Your task to perform on an android device: turn off data saver in the chrome app Image 0: 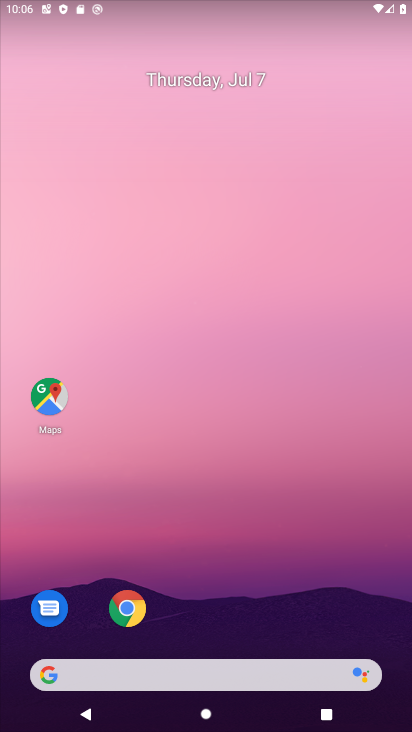
Step 0: click (130, 608)
Your task to perform on an android device: turn off data saver in the chrome app Image 1: 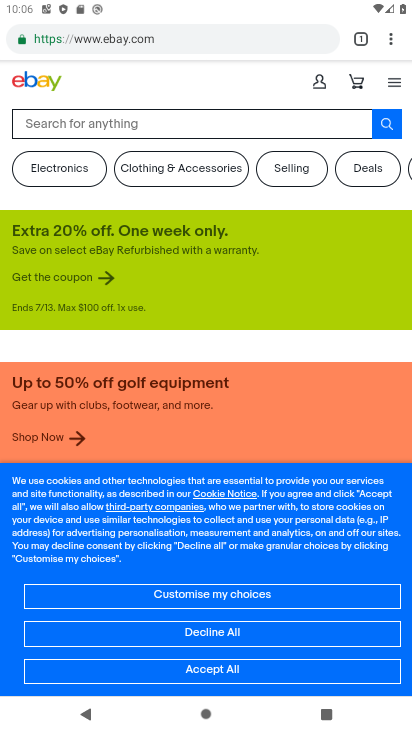
Step 1: click (386, 42)
Your task to perform on an android device: turn off data saver in the chrome app Image 2: 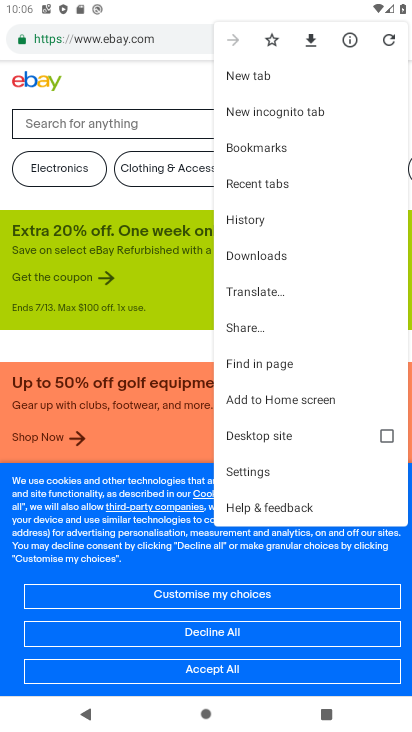
Step 2: click (259, 470)
Your task to perform on an android device: turn off data saver in the chrome app Image 3: 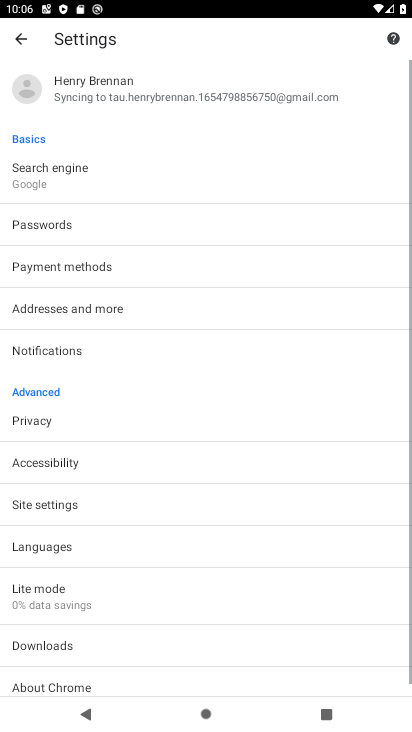
Step 3: click (56, 594)
Your task to perform on an android device: turn off data saver in the chrome app Image 4: 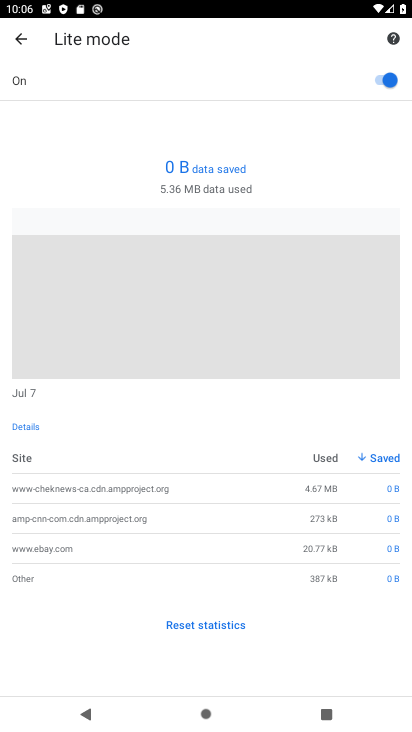
Step 4: click (391, 82)
Your task to perform on an android device: turn off data saver in the chrome app Image 5: 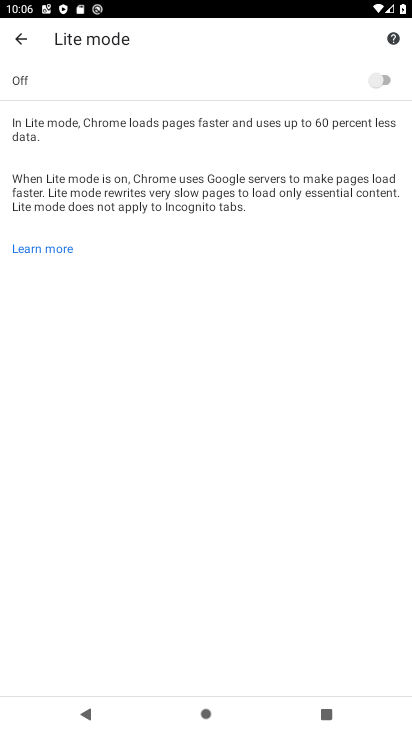
Step 5: task complete